Your task to perform on an android device: Open the map Image 0: 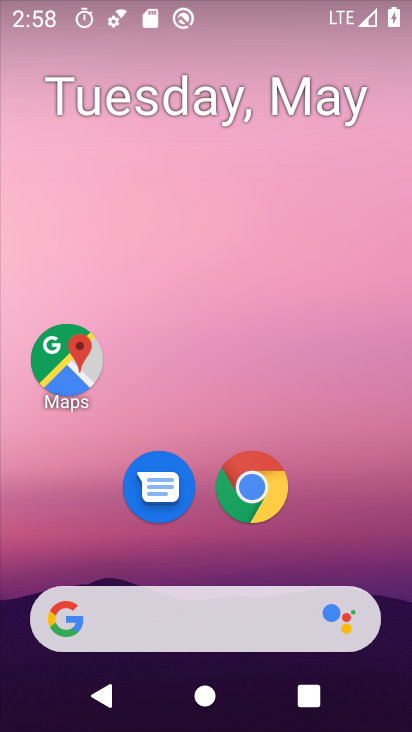
Step 0: click (65, 373)
Your task to perform on an android device: Open the map Image 1: 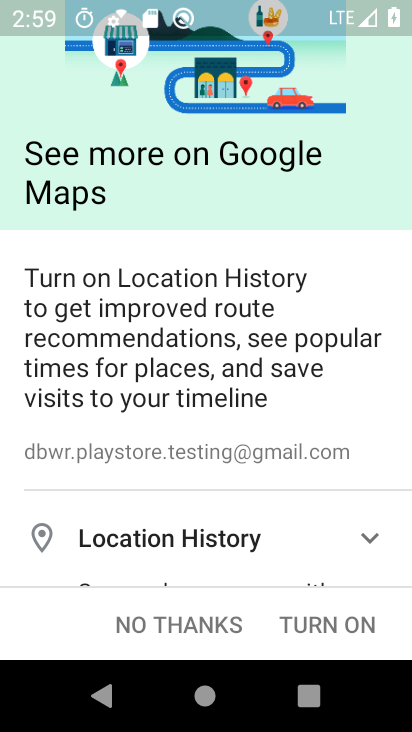
Step 1: click (361, 614)
Your task to perform on an android device: Open the map Image 2: 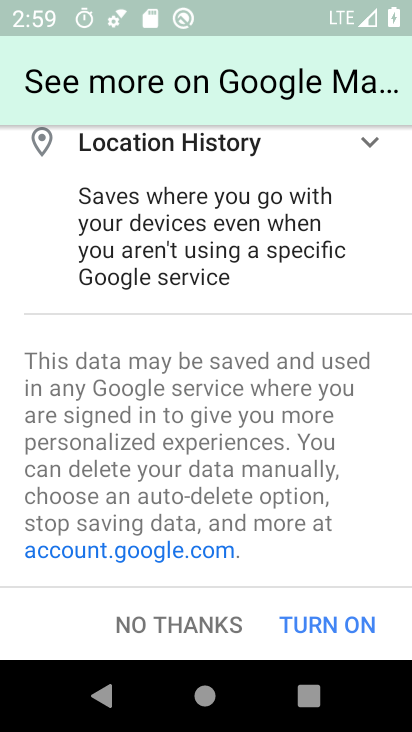
Step 2: task complete